Your task to perform on an android device: Show the shopping cart on amazon.com. Add "usb-a" to the cart on amazon.com, then select checkout. Image 0: 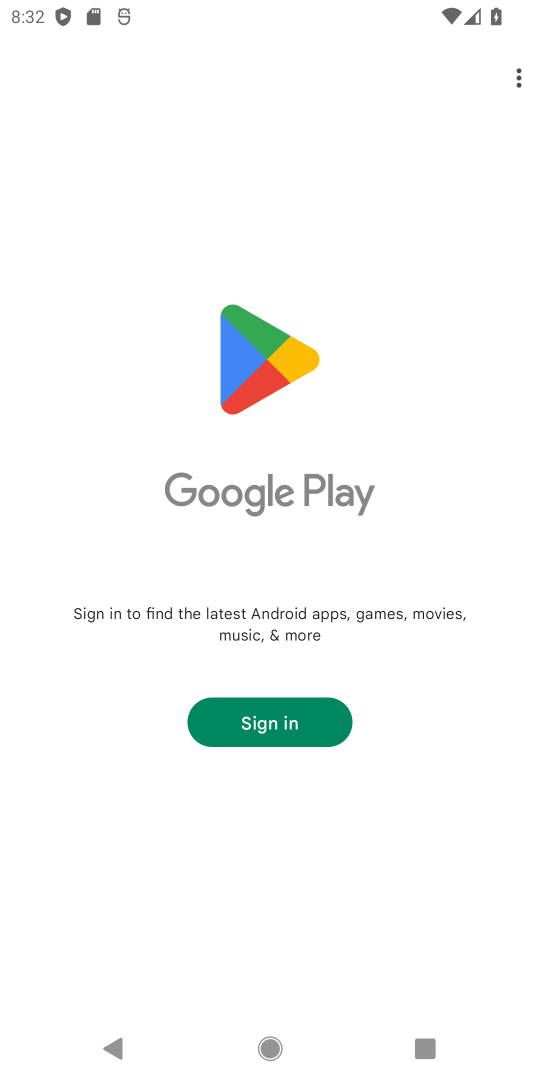
Step 0: press home button
Your task to perform on an android device: Show the shopping cart on amazon.com. Add "usb-a" to the cart on amazon.com, then select checkout. Image 1: 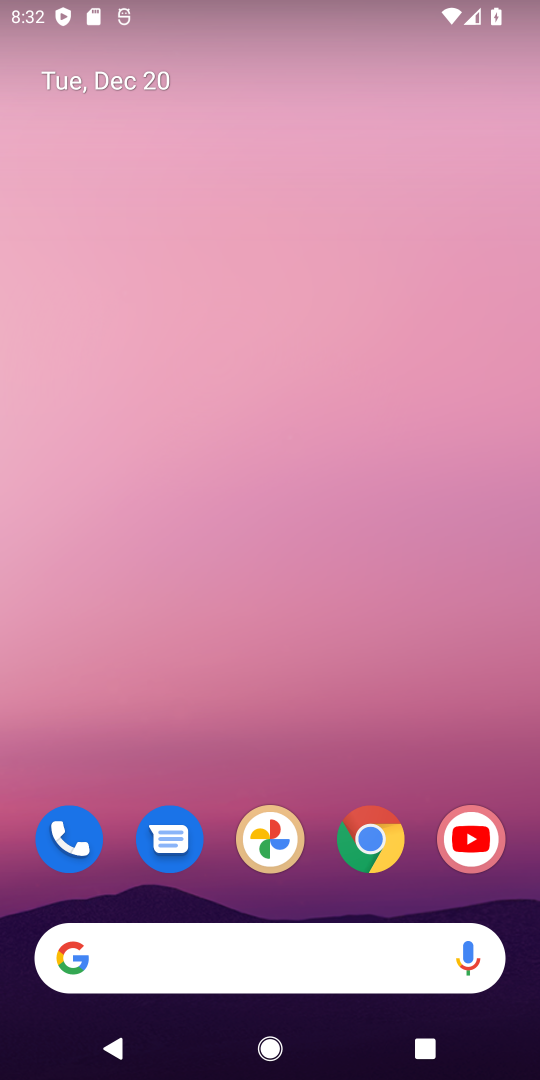
Step 1: click (247, 938)
Your task to perform on an android device: Show the shopping cart on amazon.com. Add "usb-a" to the cart on amazon.com, then select checkout. Image 2: 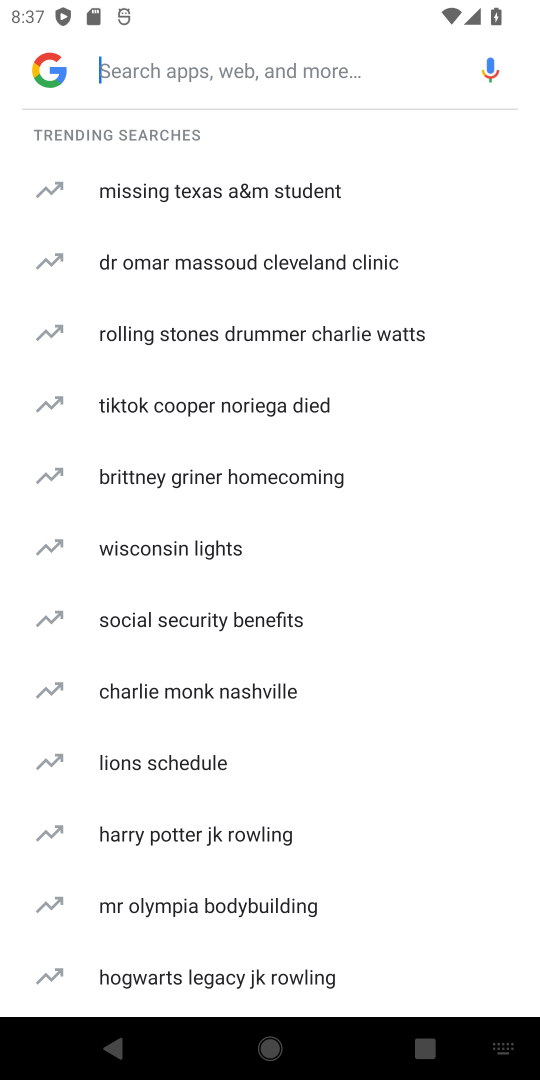
Step 2: press home button
Your task to perform on an android device: Show the shopping cart on amazon.com. Add "usb-a" to the cart on amazon.com, then select checkout. Image 3: 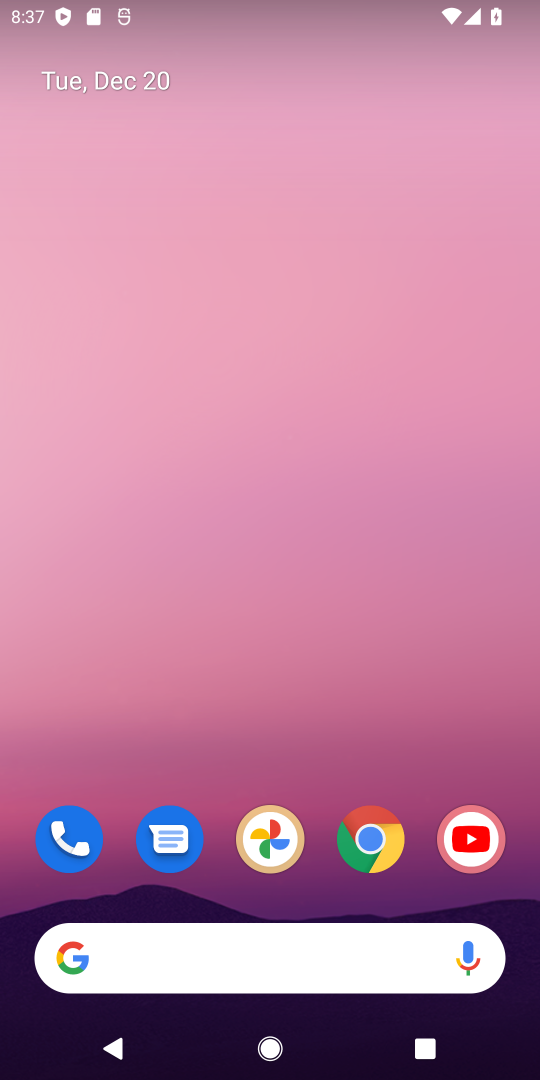
Step 3: click (302, 955)
Your task to perform on an android device: Show the shopping cart on amazon.com. Add "usb-a" to the cart on amazon.com, then select checkout. Image 4: 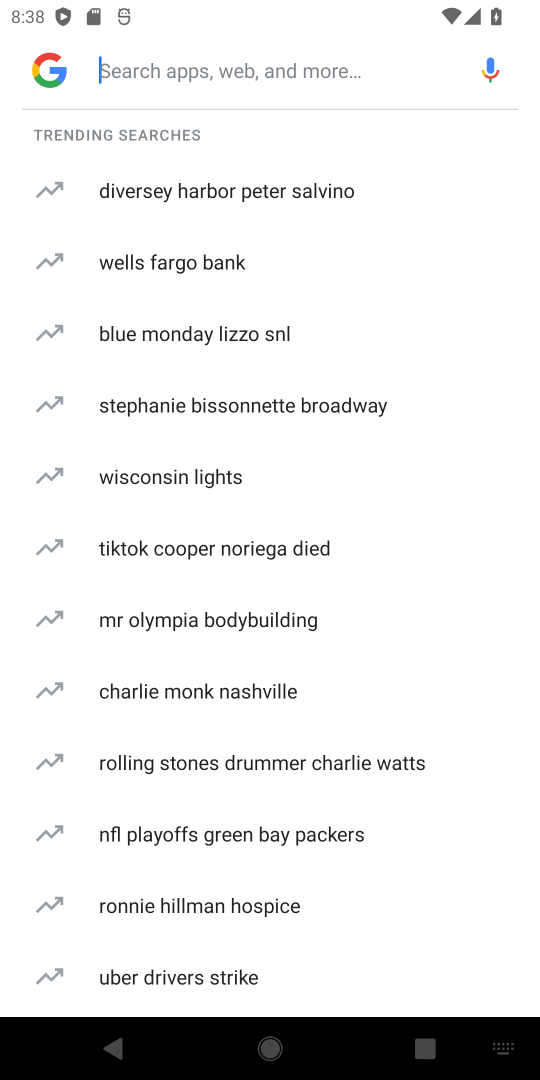
Step 4: type " amazon.com"
Your task to perform on an android device: Show the shopping cart on amazon.com. Add "usb-a" to the cart on amazon.com, then select checkout. Image 5: 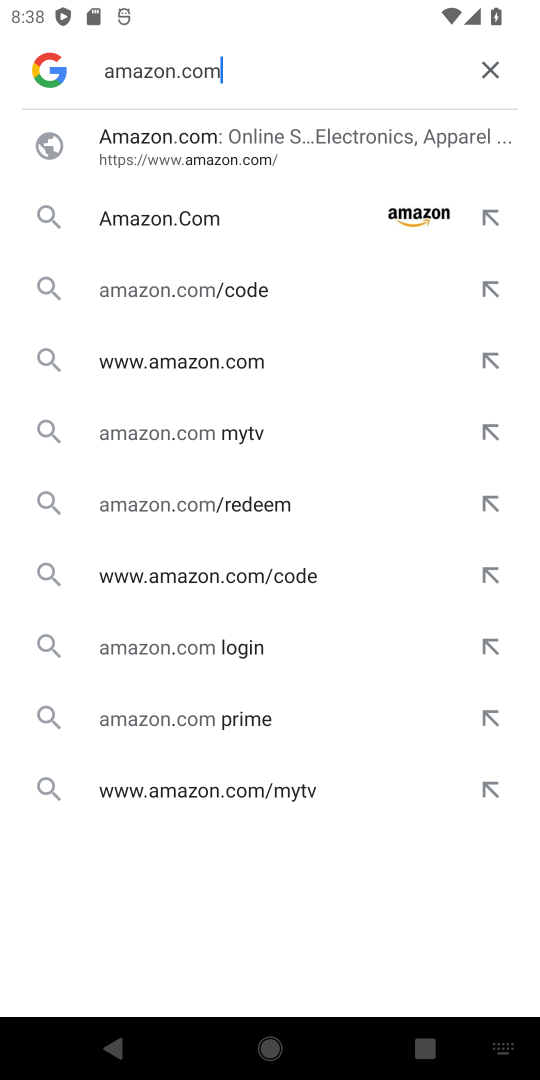
Step 5: click (323, 223)
Your task to perform on an android device: Show the shopping cart on amazon.com. Add "usb-a" to the cart on amazon.com, then select checkout. Image 6: 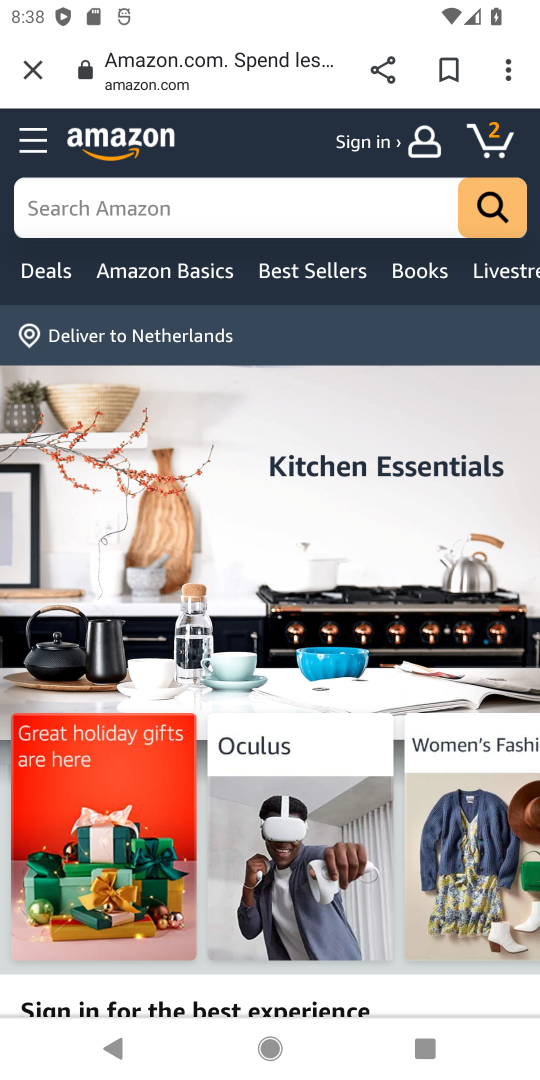
Step 6: click (486, 132)
Your task to perform on an android device: Show the shopping cart on amazon.com. Add "usb-a" to the cart on amazon.com, then select checkout. Image 7: 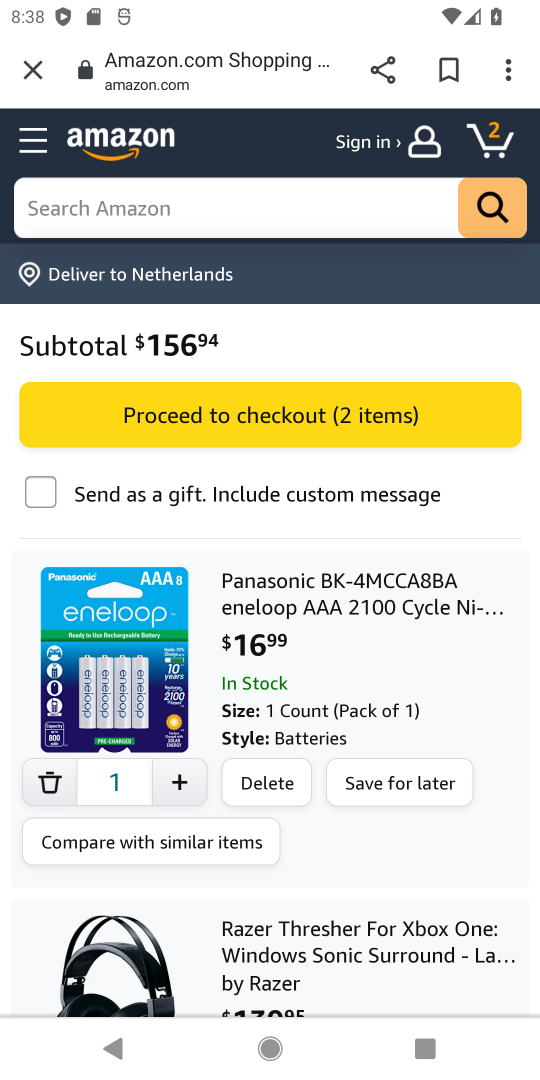
Step 7: click (214, 228)
Your task to perform on an android device: Show the shopping cart on amazon.com. Add "usb-a" to the cart on amazon.com, then select checkout. Image 8: 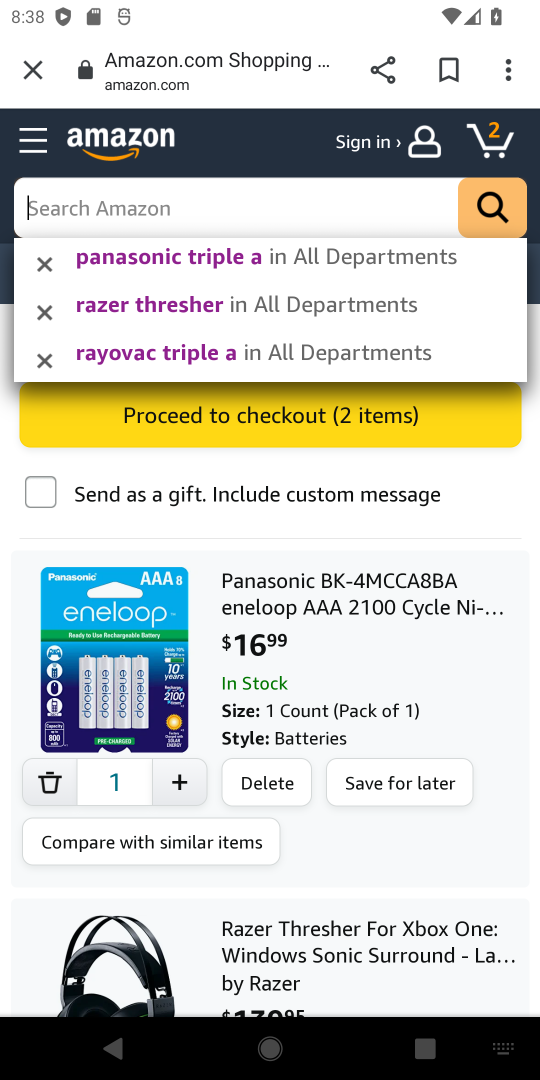
Step 8: type "usb-a"
Your task to perform on an android device: Show the shopping cart on amazon.com. Add "usb-a" to the cart on amazon.com, then select checkout. Image 9: 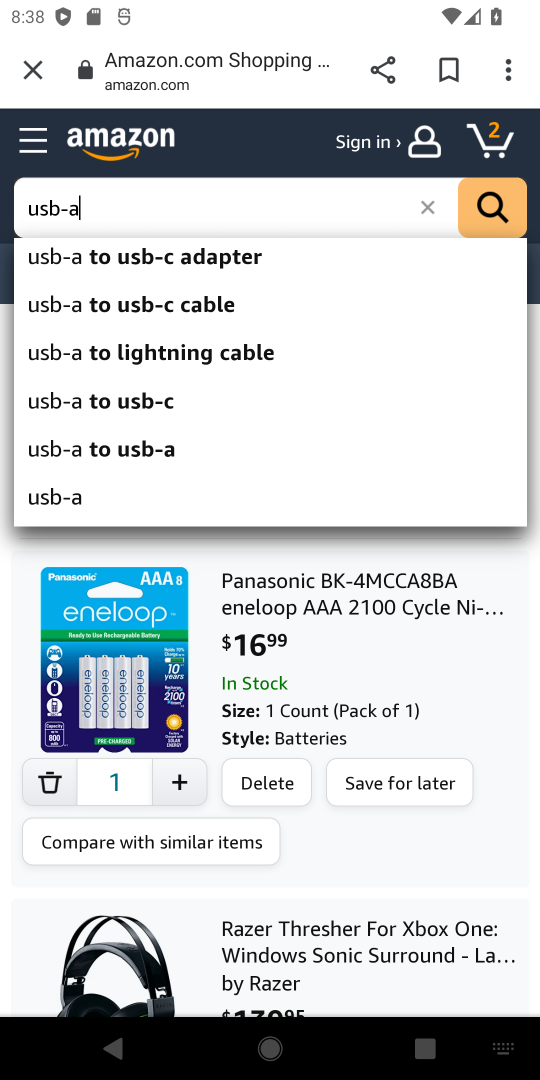
Step 9: click (490, 210)
Your task to perform on an android device: Show the shopping cart on amazon.com. Add "usb-a" to the cart on amazon.com, then select checkout. Image 10: 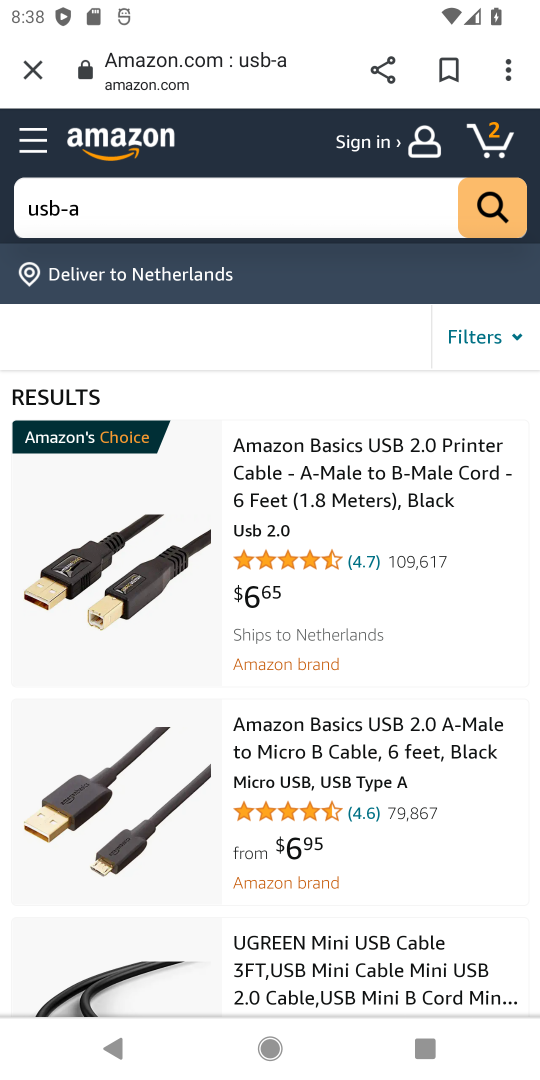
Step 10: click (264, 516)
Your task to perform on an android device: Show the shopping cart on amazon.com. Add "usb-a" to the cart on amazon.com, then select checkout. Image 11: 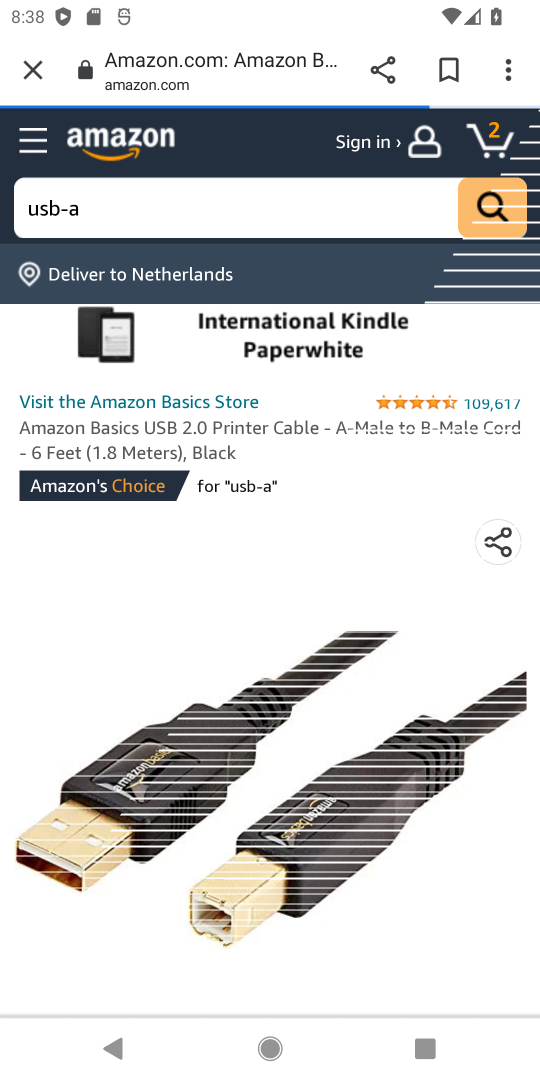
Step 11: drag from (378, 614) to (384, 479)
Your task to perform on an android device: Show the shopping cart on amazon.com. Add "usb-a" to the cart on amazon.com, then select checkout. Image 12: 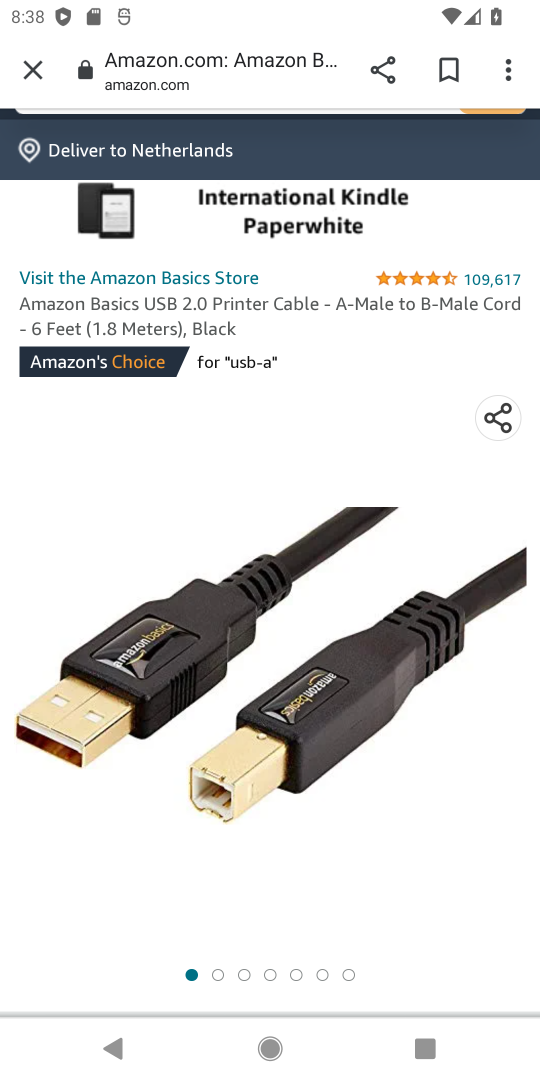
Step 12: drag from (198, 838) to (217, 467)
Your task to perform on an android device: Show the shopping cart on amazon.com. Add "usb-a" to the cart on amazon.com, then select checkout. Image 13: 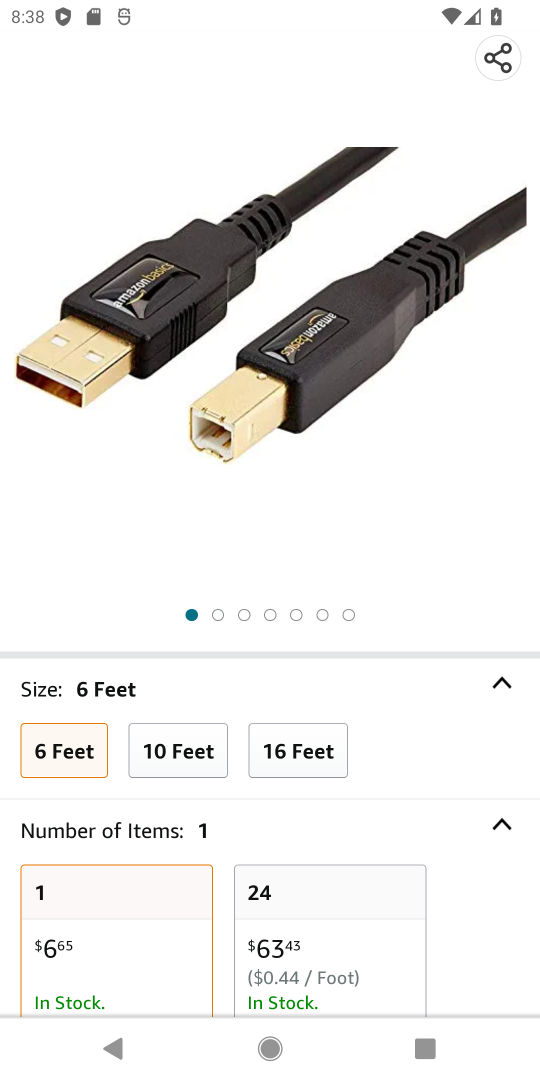
Step 13: drag from (296, 577) to (290, 474)
Your task to perform on an android device: Show the shopping cart on amazon.com. Add "usb-a" to the cart on amazon.com, then select checkout. Image 14: 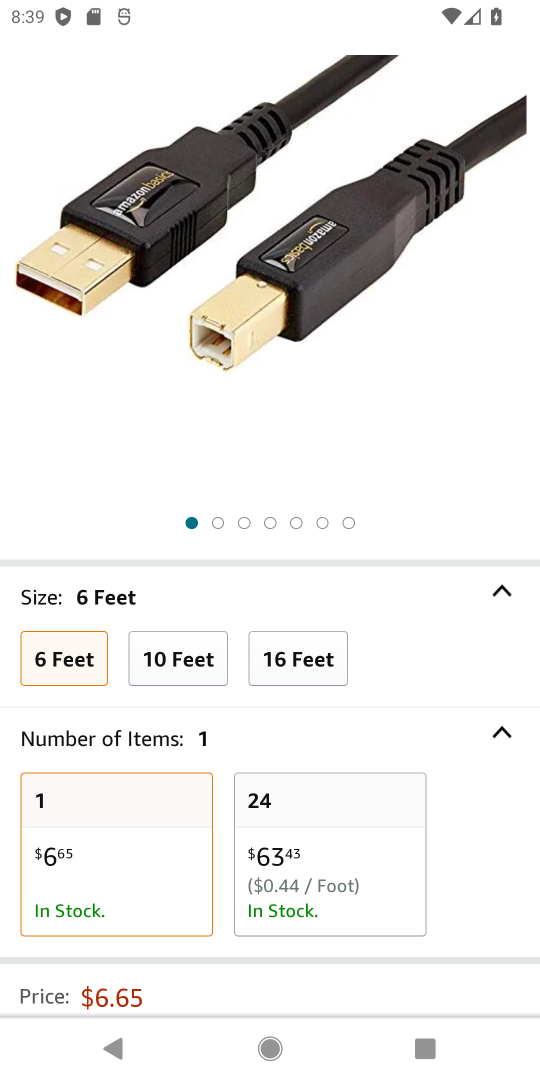
Step 14: drag from (440, 853) to (415, 456)
Your task to perform on an android device: Show the shopping cart on amazon.com. Add "usb-a" to the cart on amazon.com, then select checkout. Image 15: 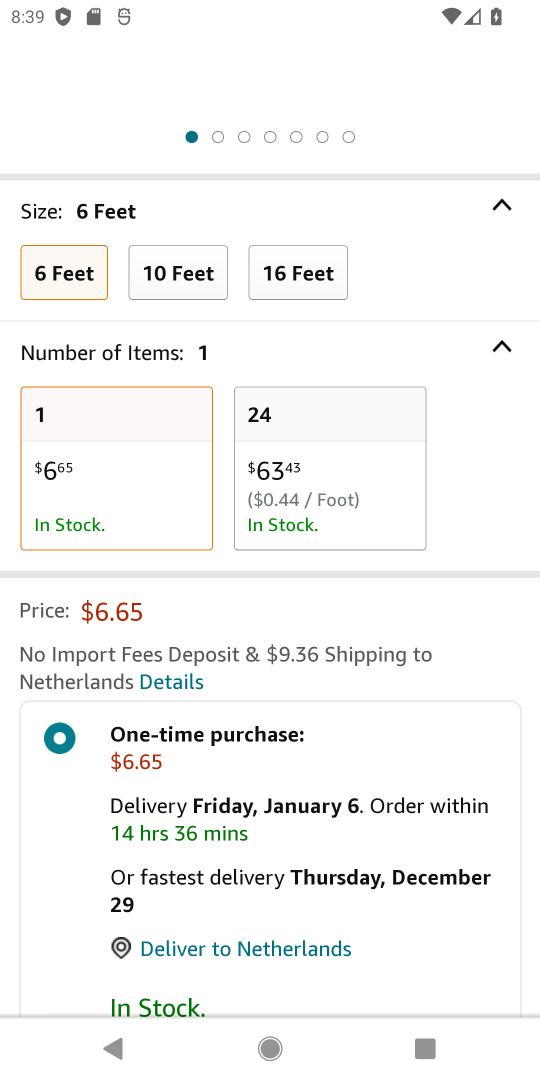
Step 15: drag from (293, 728) to (291, 522)
Your task to perform on an android device: Show the shopping cart on amazon.com. Add "usb-a" to the cart on amazon.com, then select checkout. Image 16: 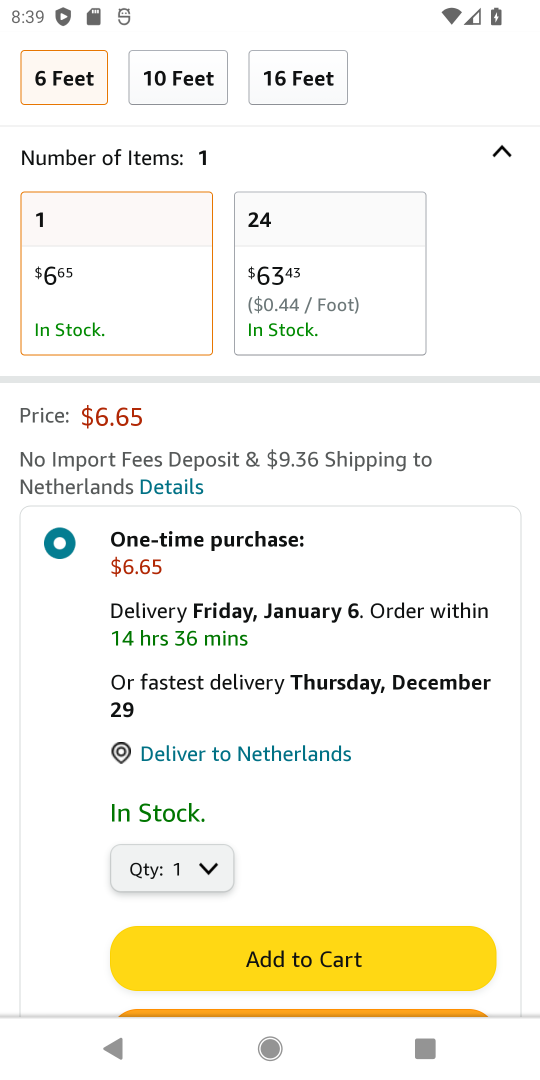
Step 16: drag from (268, 768) to (263, 558)
Your task to perform on an android device: Show the shopping cart on amazon.com. Add "usb-a" to the cart on amazon.com, then select checkout. Image 17: 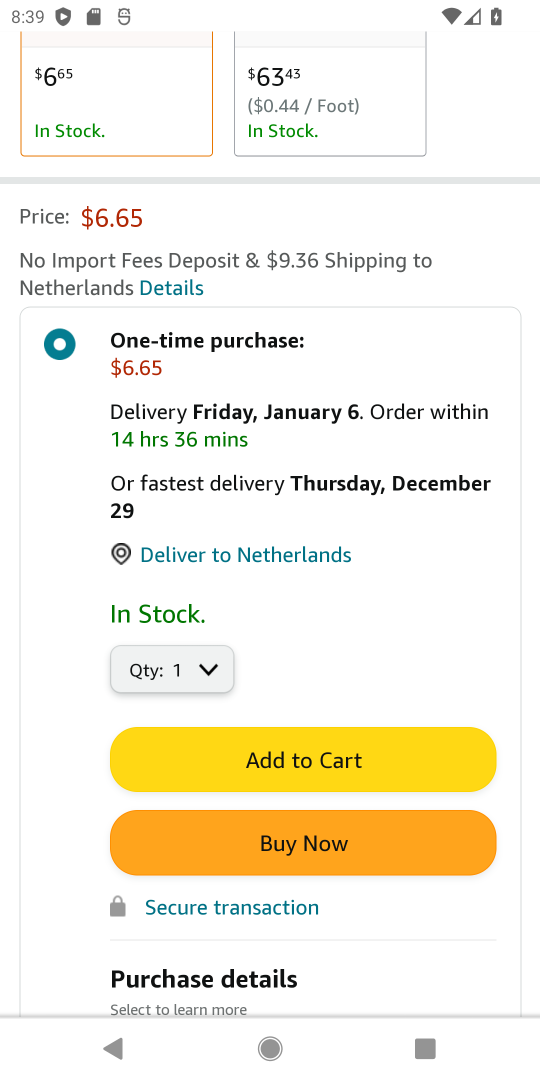
Step 17: click (255, 763)
Your task to perform on an android device: Show the shopping cart on amazon.com. Add "usb-a" to the cart on amazon.com, then select checkout. Image 18: 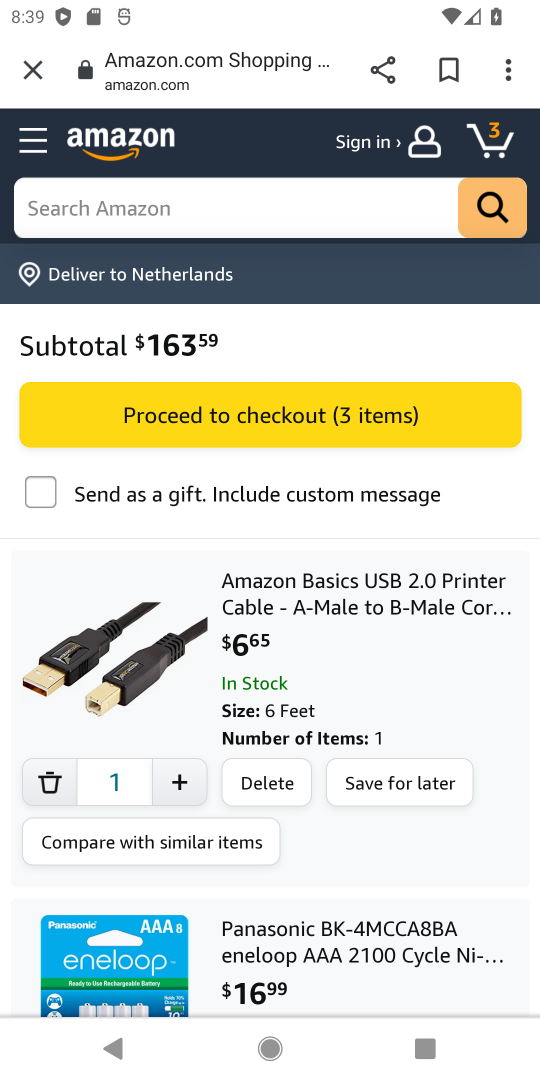
Step 18: click (271, 399)
Your task to perform on an android device: Show the shopping cart on amazon.com. Add "usb-a" to the cart on amazon.com, then select checkout. Image 19: 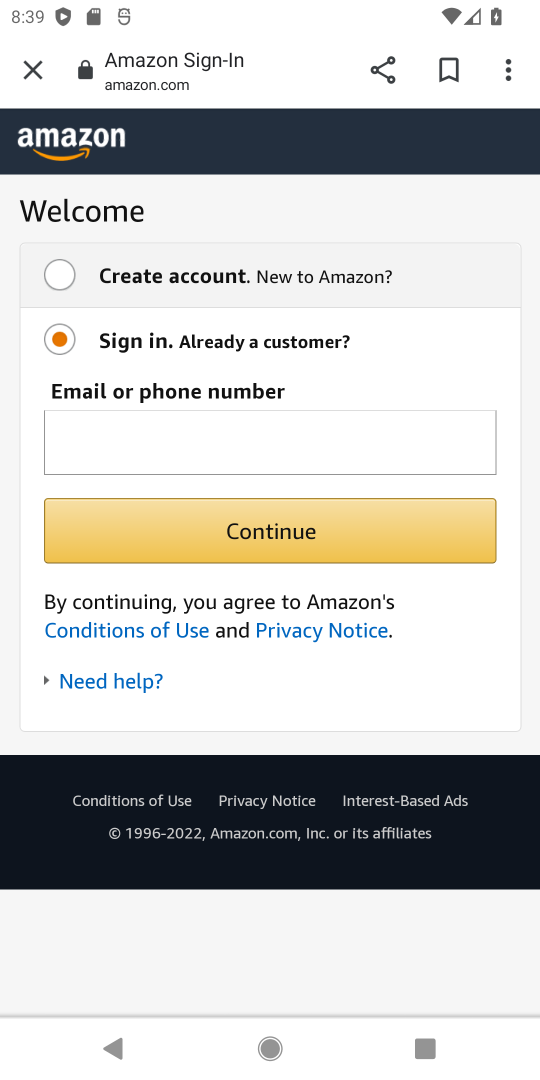
Step 19: task complete